Your task to perform on an android device: delete the emails in spam in the gmail app Image 0: 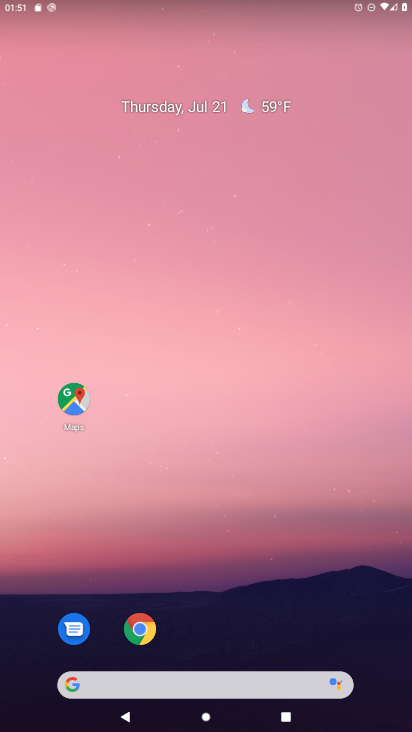
Step 0: drag from (366, 664) to (329, 112)
Your task to perform on an android device: delete the emails in spam in the gmail app Image 1: 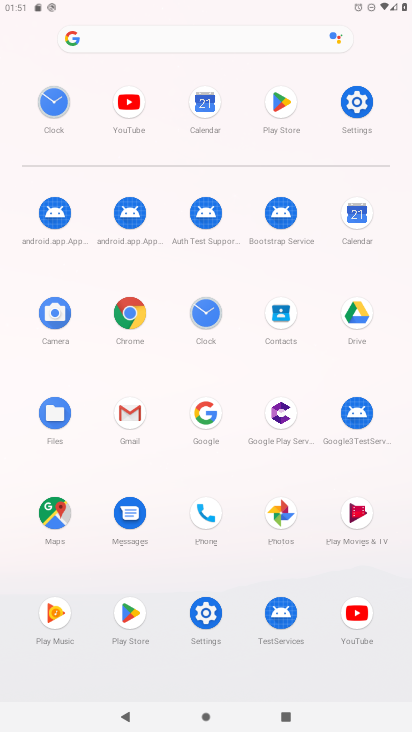
Step 1: click (130, 413)
Your task to perform on an android device: delete the emails in spam in the gmail app Image 2: 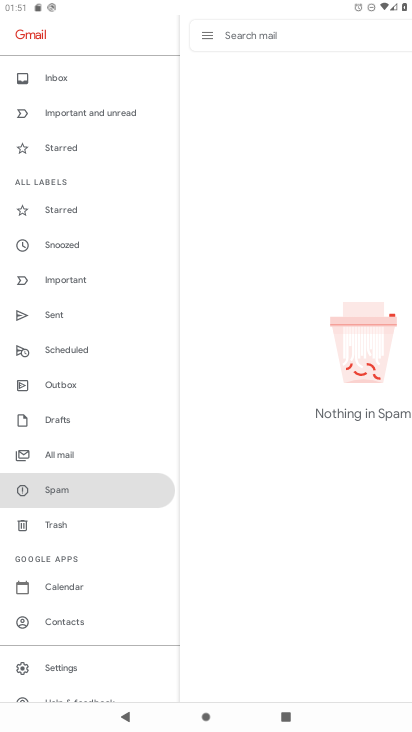
Step 2: task complete